Your task to perform on an android device: search for starred emails in the gmail app Image 0: 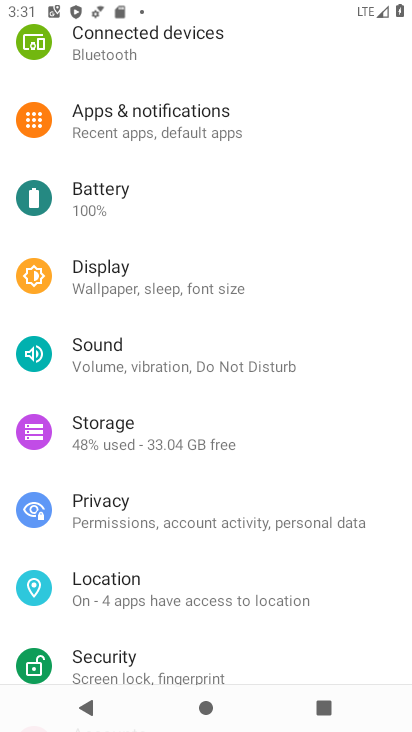
Step 0: press home button
Your task to perform on an android device: search for starred emails in the gmail app Image 1: 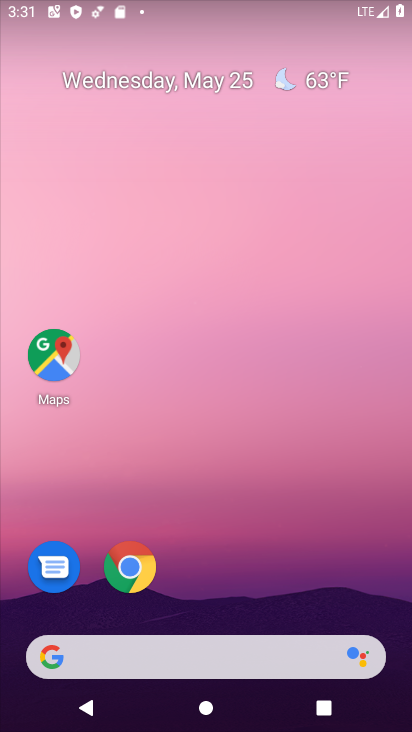
Step 1: drag from (289, 582) to (281, 68)
Your task to perform on an android device: search for starred emails in the gmail app Image 2: 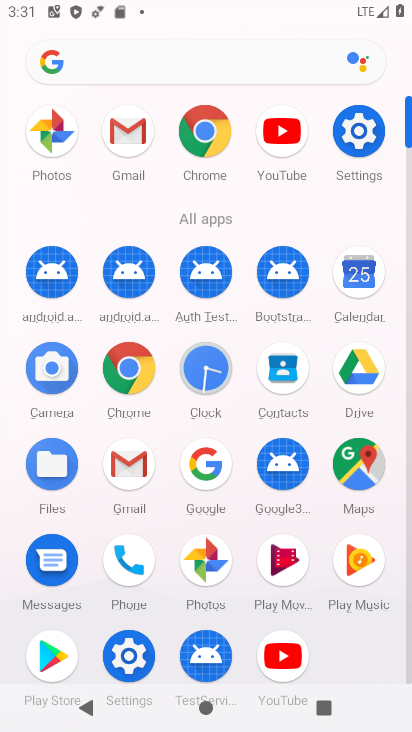
Step 2: click (126, 467)
Your task to perform on an android device: search for starred emails in the gmail app Image 3: 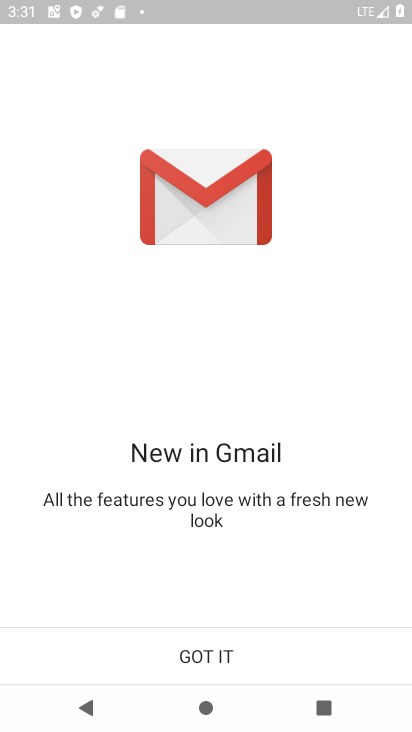
Step 3: click (194, 656)
Your task to perform on an android device: search for starred emails in the gmail app Image 4: 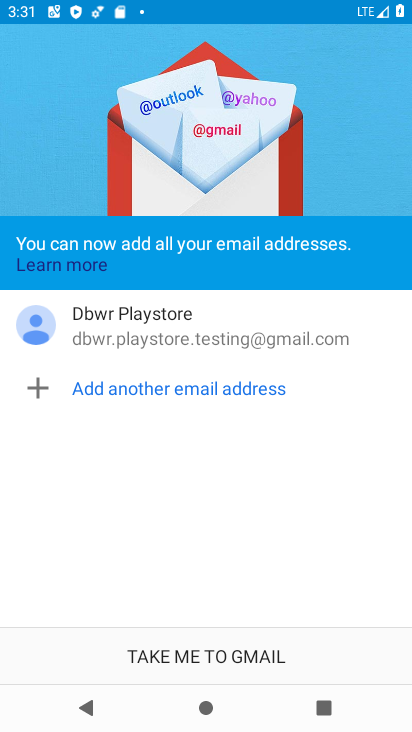
Step 4: click (194, 656)
Your task to perform on an android device: search for starred emails in the gmail app Image 5: 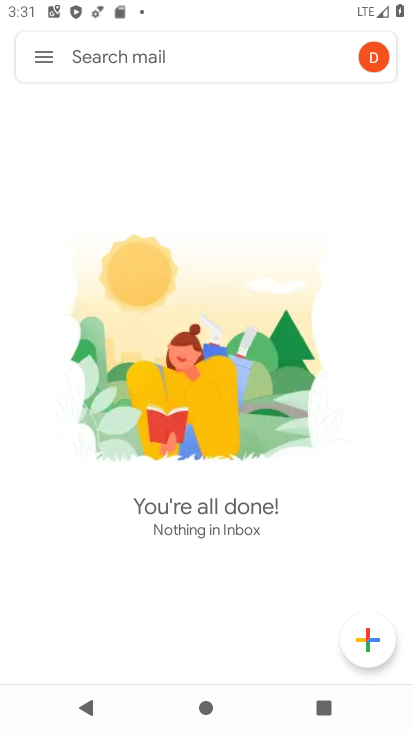
Step 5: click (46, 54)
Your task to perform on an android device: search for starred emails in the gmail app Image 6: 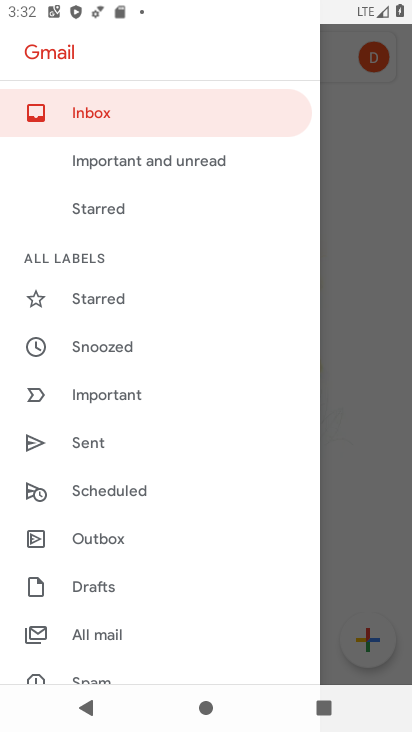
Step 6: click (111, 302)
Your task to perform on an android device: search for starred emails in the gmail app Image 7: 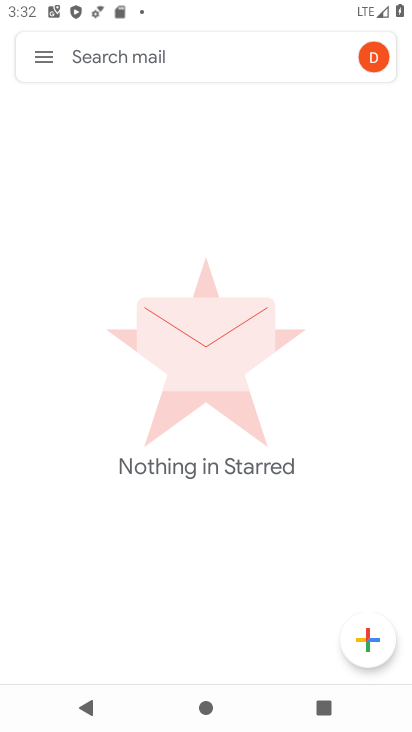
Step 7: task complete